Your task to perform on an android device: toggle wifi Image 0: 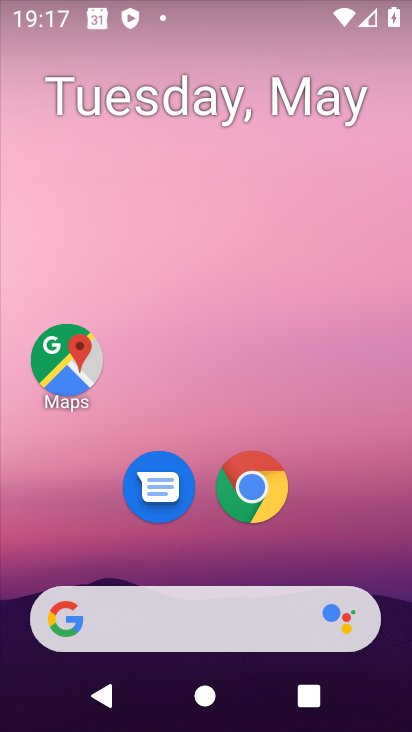
Step 0: drag from (343, 509) to (239, 23)
Your task to perform on an android device: toggle wifi Image 1: 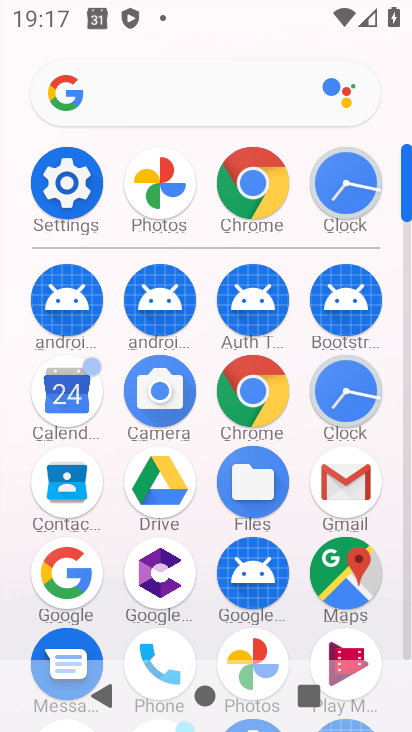
Step 1: click (68, 188)
Your task to perform on an android device: toggle wifi Image 2: 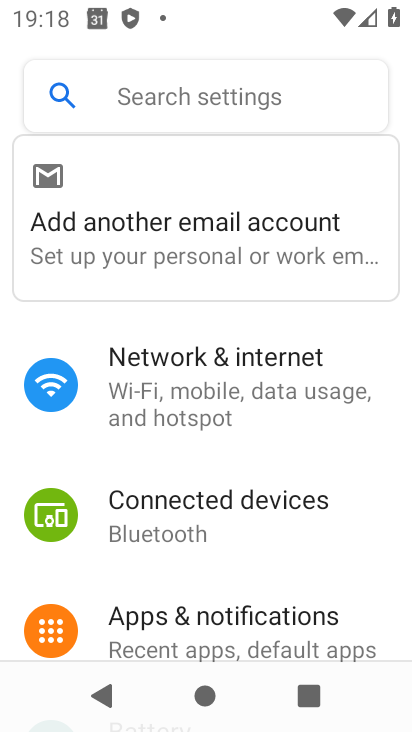
Step 2: click (229, 366)
Your task to perform on an android device: toggle wifi Image 3: 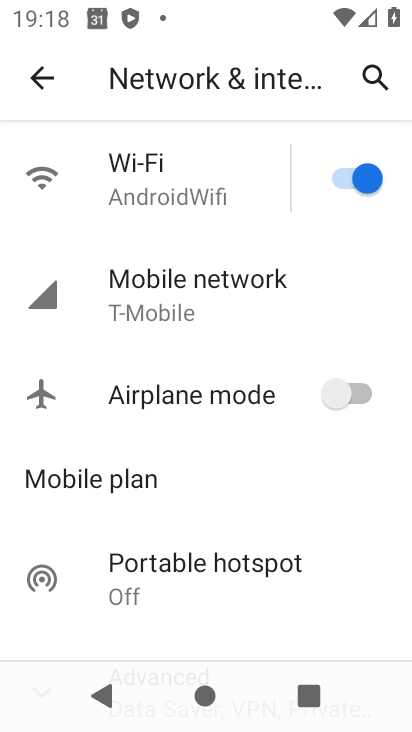
Step 3: click (361, 169)
Your task to perform on an android device: toggle wifi Image 4: 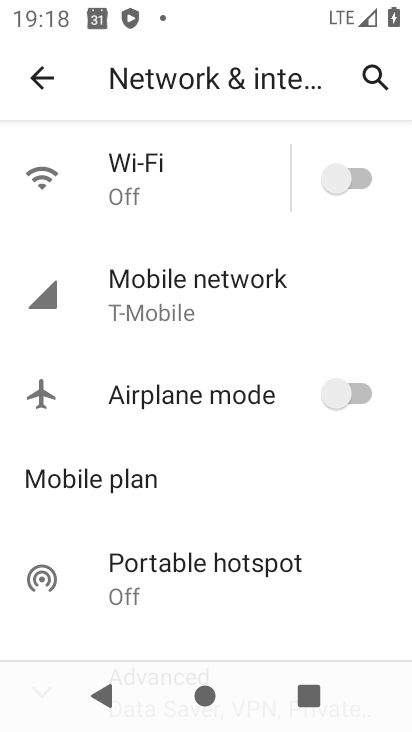
Step 4: task complete